Your task to perform on an android device: What is the news today? Image 0: 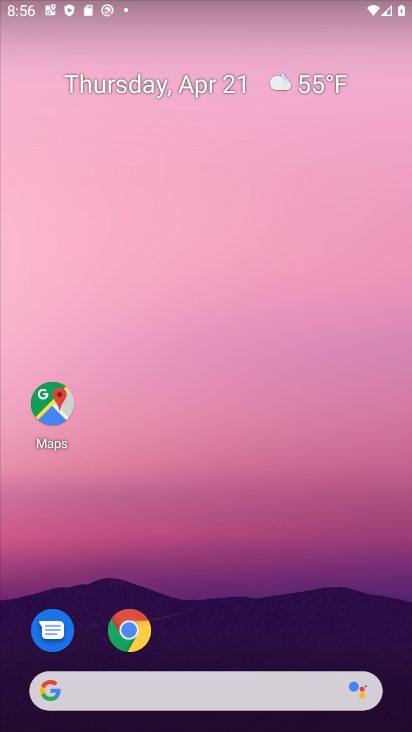
Step 0: drag from (26, 301) to (360, 308)
Your task to perform on an android device: What is the news today? Image 1: 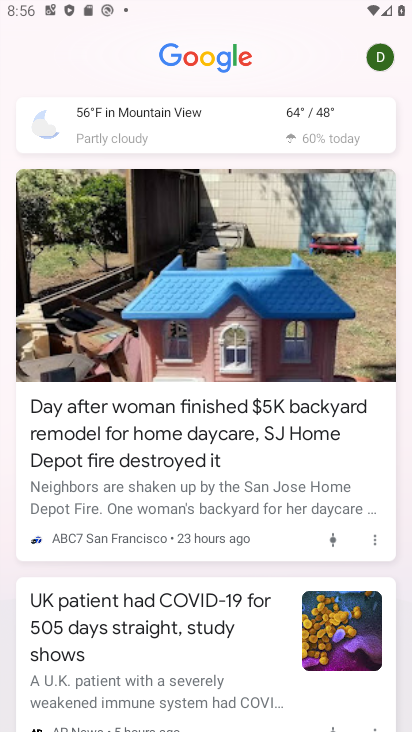
Step 1: task complete